Your task to perform on an android device: What's the speed of light? Image 0: 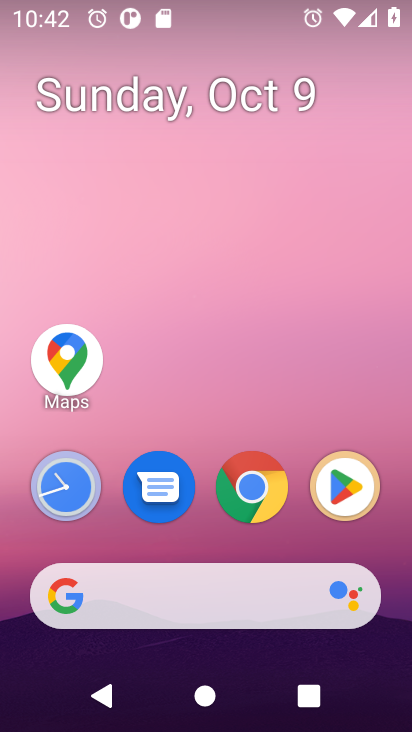
Step 0: drag from (233, 561) to (183, 10)
Your task to perform on an android device: What's the speed of light? Image 1: 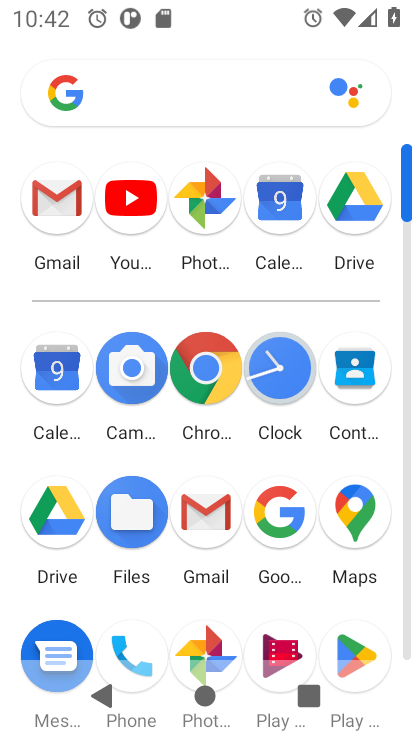
Step 1: click (272, 503)
Your task to perform on an android device: What's the speed of light? Image 2: 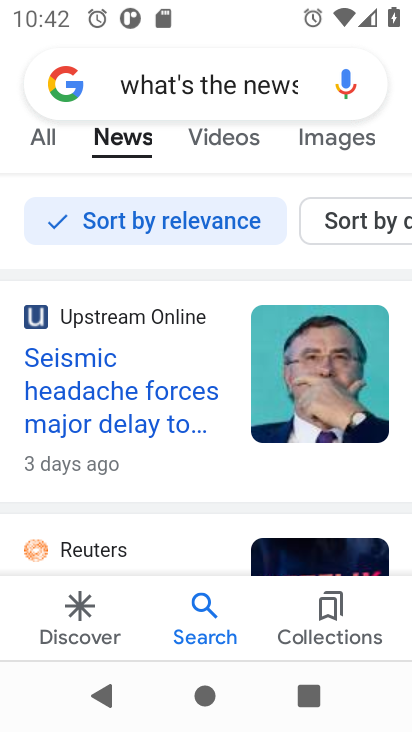
Step 2: click (258, 85)
Your task to perform on an android device: What's the speed of light? Image 3: 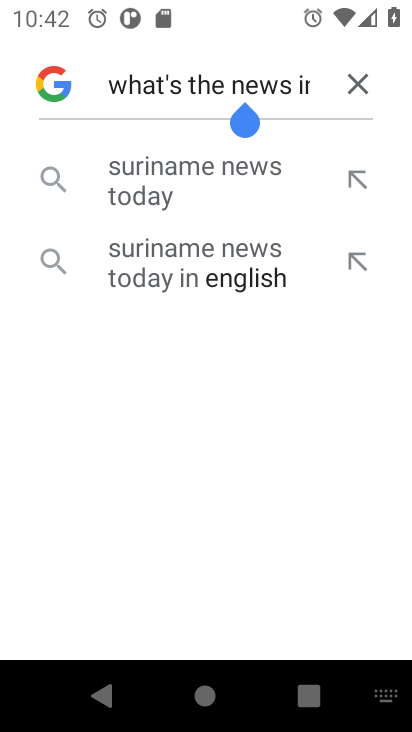
Step 3: click (361, 82)
Your task to perform on an android device: What's the speed of light? Image 4: 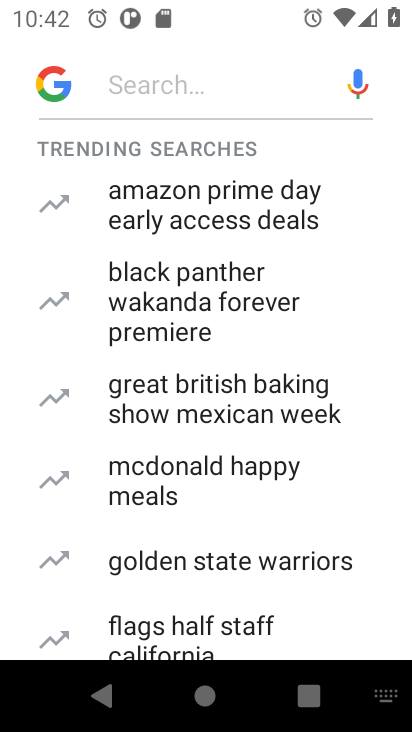
Step 4: type "What's the speed of light?"
Your task to perform on an android device: What's the speed of light? Image 5: 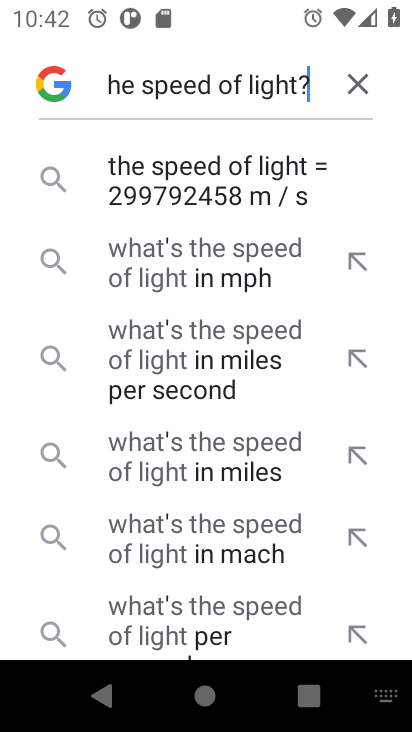
Step 5: click (237, 158)
Your task to perform on an android device: What's the speed of light? Image 6: 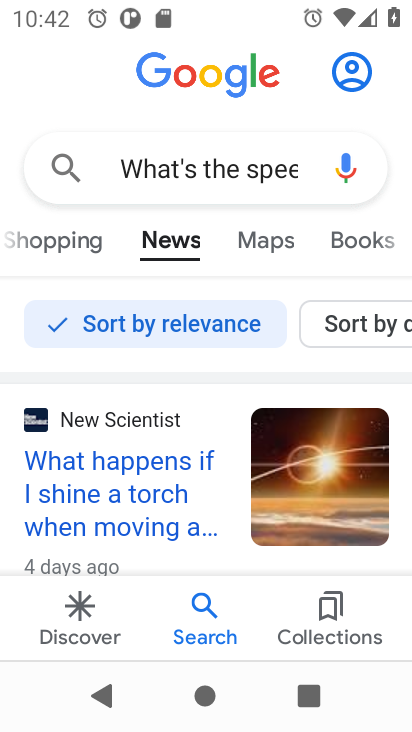
Step 6: drag from (39, 234) to (263, 229)
Your task to perform on an android device: What's the speed of light? Image 7: 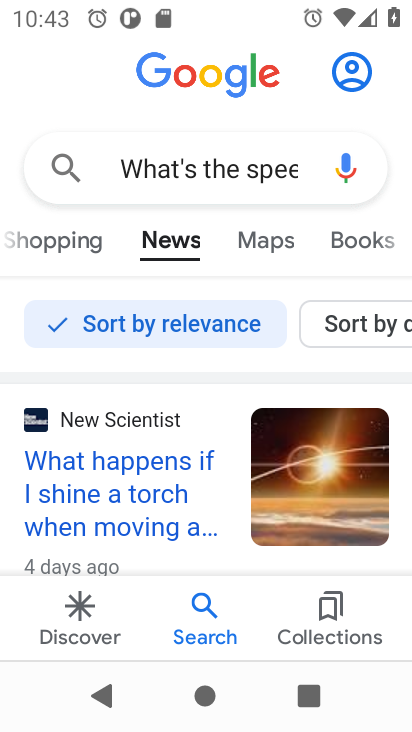
Step 7: drag from (81, 242) to (266, 241)
Your task to perform on an android device: What's the speed of light? Image 8: 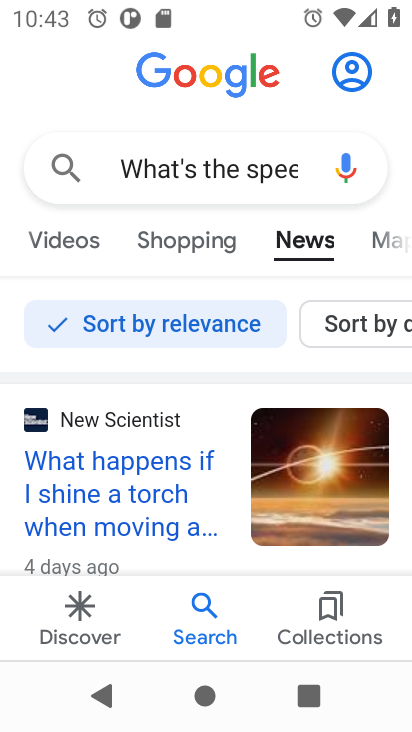
Step 8: drag from (70, 246) to (332, 233)
Your task to perform on an android device: What's the speed of light? Image 9: 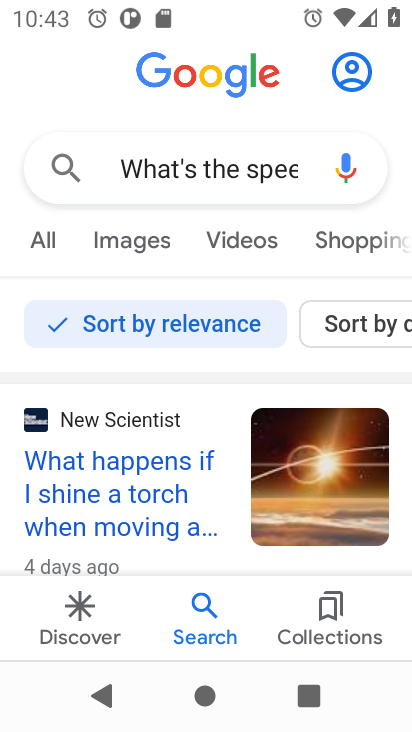
Step 9: click (46, 240)
Your task to perform on an android device: What's the speed of light? Image 10: 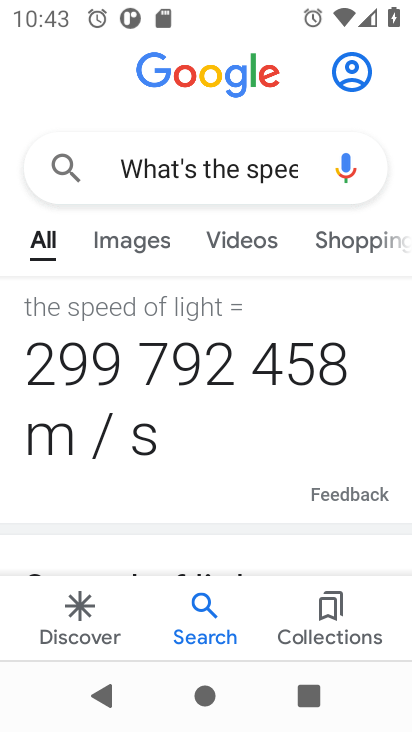
Step 10: task complete